Your task to perform on an android device: find photos in the google photos app Image 0: 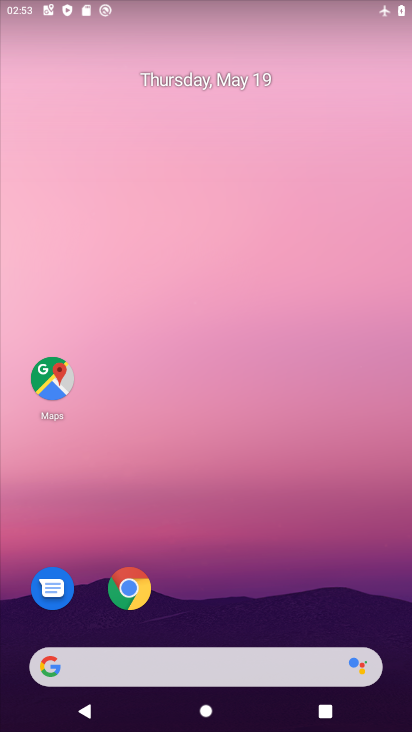
Step 0: drag from (262, 620) to (242, 129)
Your task to perform on an android device: find photos in the google photos app Image 1: 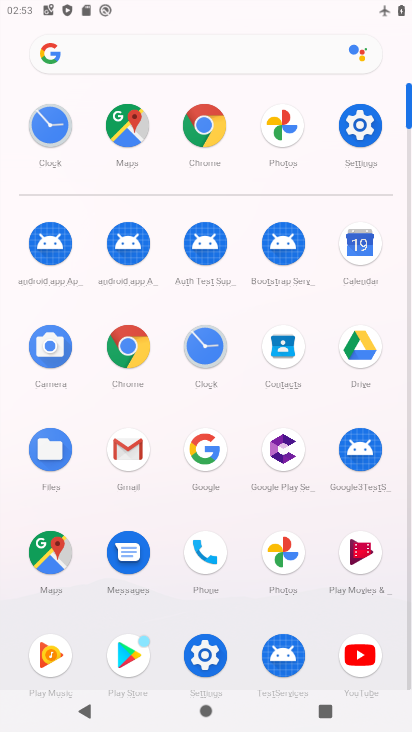
Step 1: click (281, 549)
Your task to perform on an android device: find photos in the google photos app Image 2: 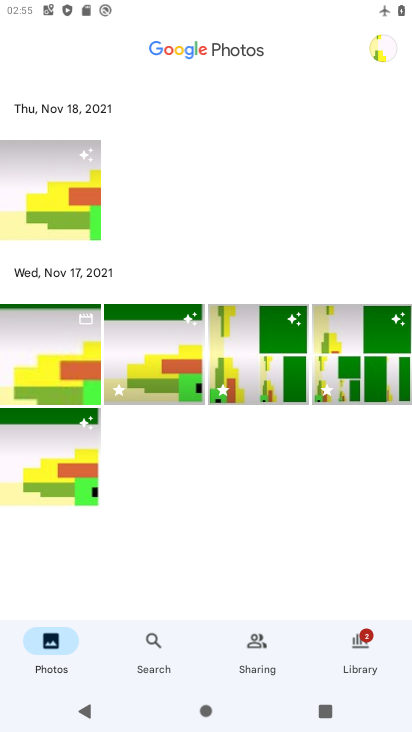
Step 2: task complete